Your task to perform on an android device: Open eBay Image 0: 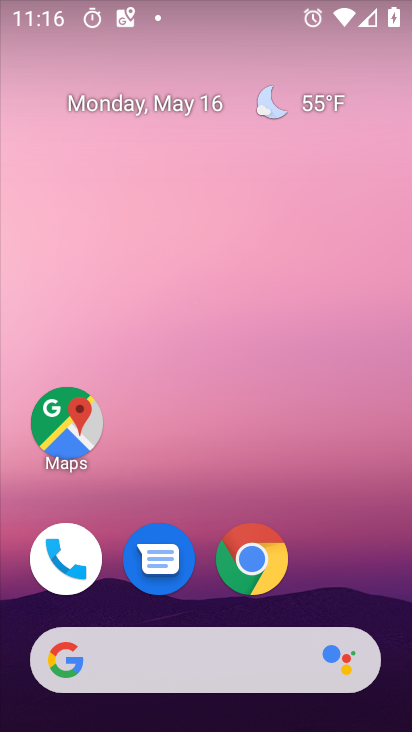
Step 0: click (239, 561)
Your task to perform on an android device: Open eBay Image 1: 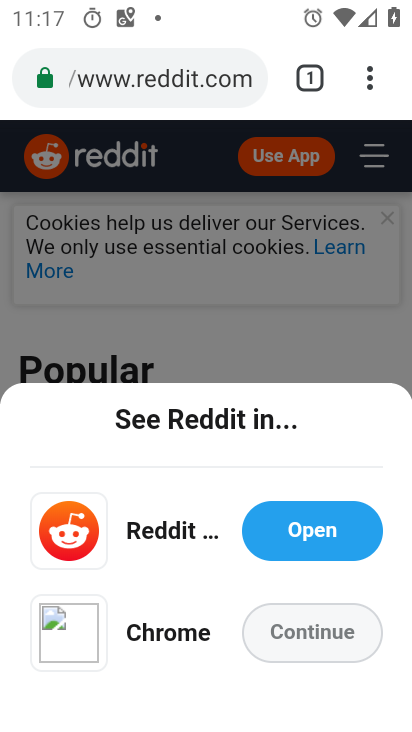
Step 1: click (190, 74)
Your task to perform on an android device: Open eBay Image 2: 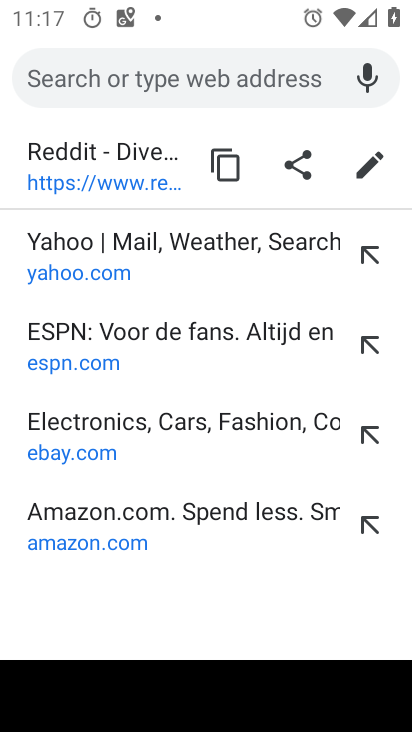
Step 2: type "ebay"
Your task to perform on an android device: Open eBay Image 3: 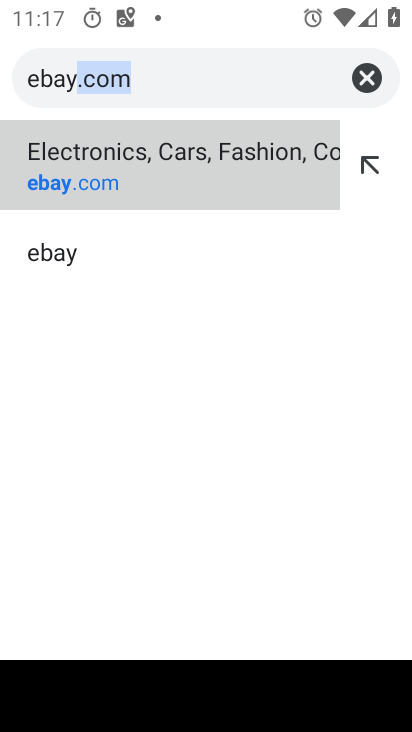
Step 3: click (105, 175)
Your task to perform on an android device: Open eBay Image 4: 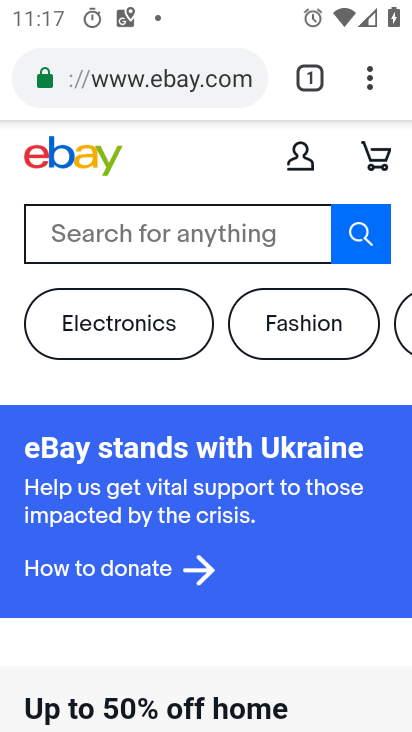
Step 4: task complete